Your task to perform on an android device: Open wifi settings Image 0: 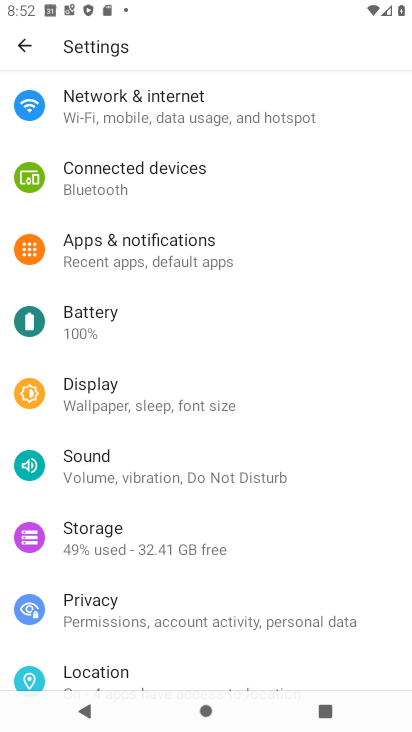
Step 0: press home button
Your task to perform on an android device: Open wifi settings Image 1: 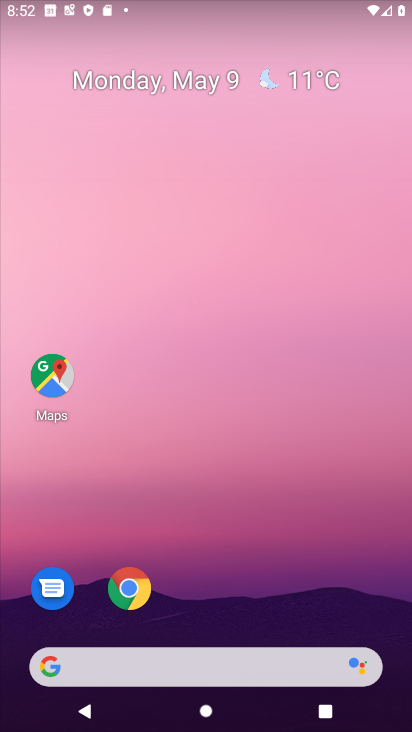
Step 1: drag from (139, 667) to (279, 105)
Your task to perform on an android device: Open wifi settings Image 2: 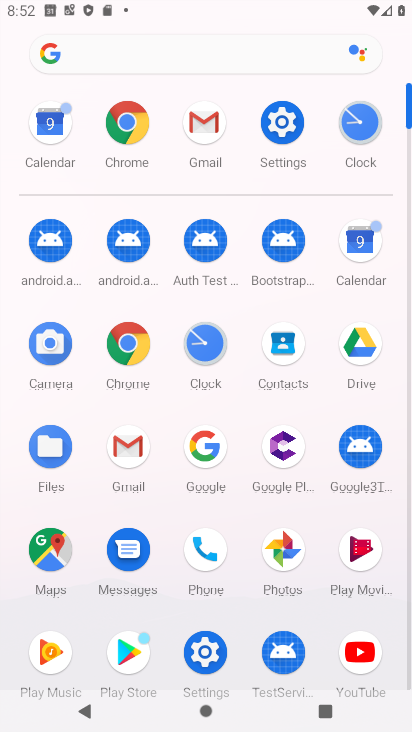
Step 2: click (275, 128)
Your task to perform on an android device: Open wifi settings Image 3: 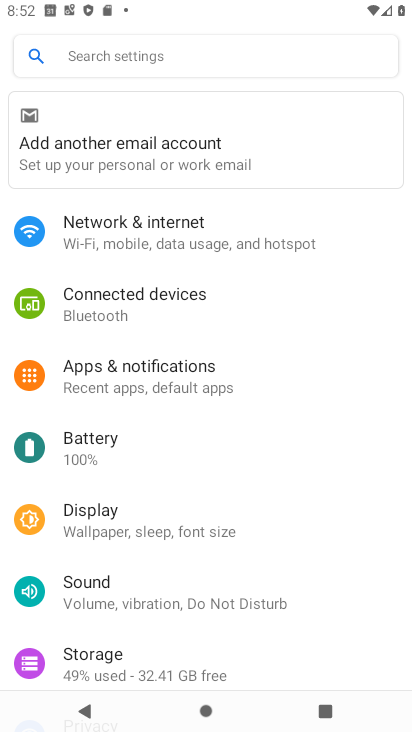
Step 3: click (134, 228)
Your task to perform on an android device: Open wifi settings Image 4: 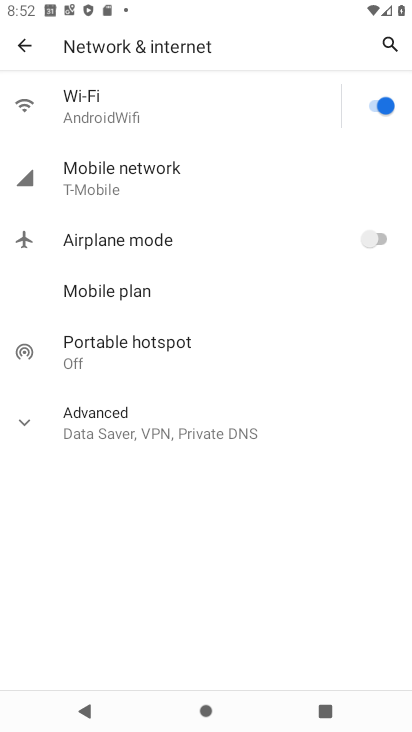
Step 4: click (116, 116)
Your task to perform on an android device: Open wifi settings Image 5: 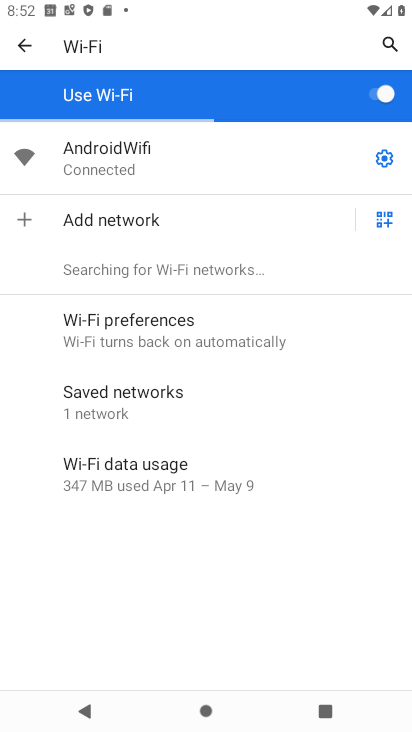
Step 5: task complete